Your task to perform on an android device: Clear all items from cart on target. Search for razer blade on target, select the first entry, and add it to the cart. Image 0: 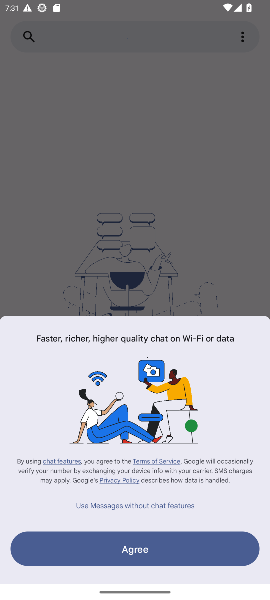
Step 0: press home button
Your task to perform on an android device: Clear all items from cart on target. Search for razer blade on target, select the first entry, and add it to the cart. Image 1: 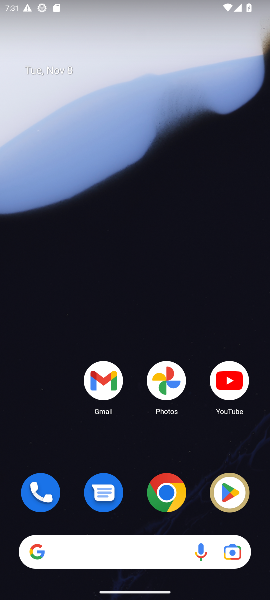
Step 1: click (168, 485)
Your task to perform on an android device: Clear all items from cart on target. Search for razer blade on target, select the first entry, and add it to the cart. Image 2: 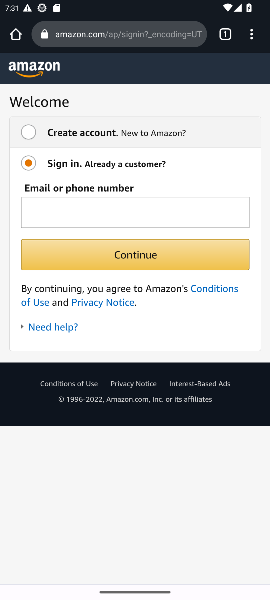
Step 2: click (155, 37)
Your task to perform on an android device: Clear all items from cart on target. Search for razer blade on target, select the first entry, and add it to the cart. Image 3: 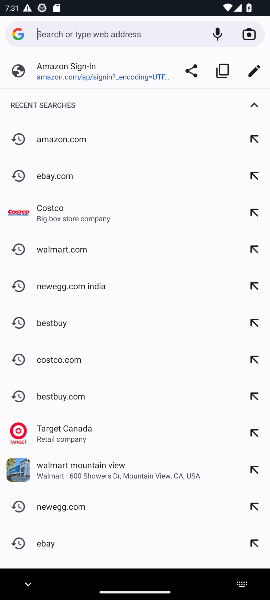
Step 3: type "target"
Your task to perform on an android device: Clear all items from cart on target. Search for razer blade on target, select the first entry, and add it to the cart. Image 4: 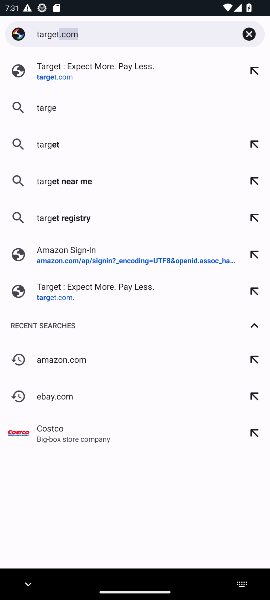
Step 4: press enter
Your task to perform on an android device: Clear all items from cart on target. Search for razer blade on target, select the first entry, and add it to the cart. Image 5: 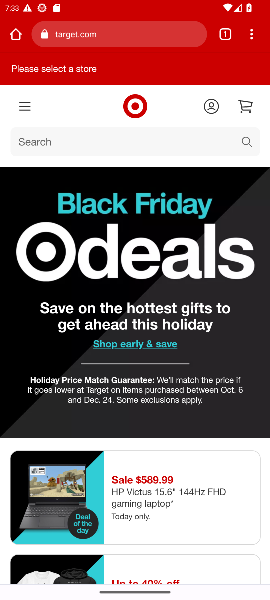
Step 5: click (95, 36)
Your task to perform on an android device: Clear all items from cart on target. Search for razer blade on target, select the first entry, and add it to the cart. Image 6: 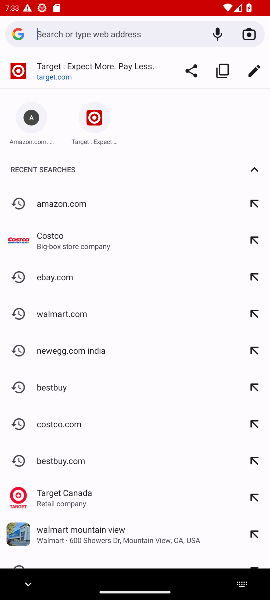
Step 6: type "target"
Your task to perform on an android device: Clear all items from cart on target. Search for razer blade on target, select the first entry, and add it to the cart. Image 7: 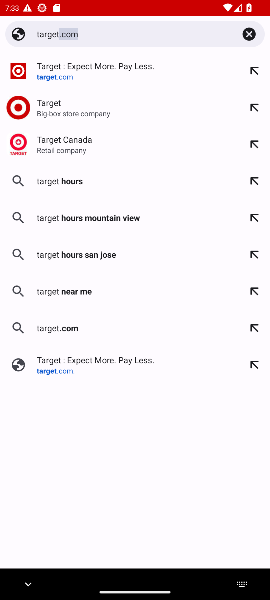
Step 7: press enter
Your task to perform on an android device: Clear all items from cart on target. Search for razer blade on target, select the first entry, and add it to the cart. Image 8: 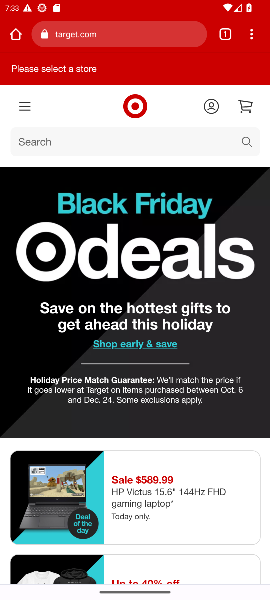
Step 8: click (54, 137)
Your task to perform on an android device: Clear all items from cart on target. Search for razer blade on target, select the first entry, and add it to the cart. Image 9: 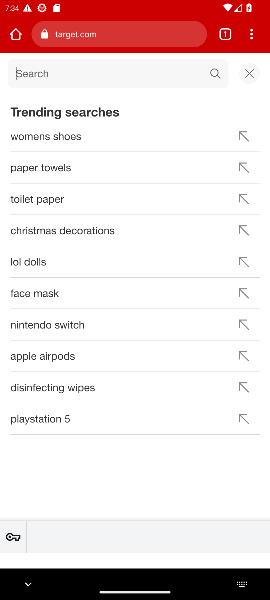
Step 9: click (251, 76)
Your task to perform on an android device: Clear all items from cart on target. Search for razer blade on target, select the first entry, and add it to the cart. Image 10: 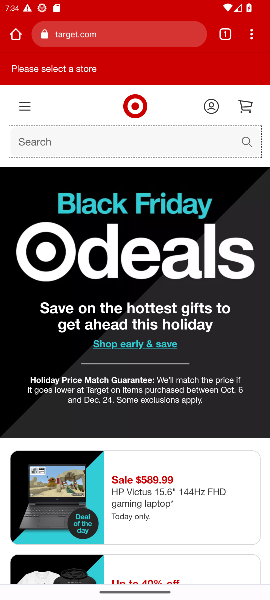
Step 10: click (247, 108)
Your task to perform on an android device: Clear all items from cart on target. Search for razer blade on target, select the first entry, and add it to the cart. Image 11: 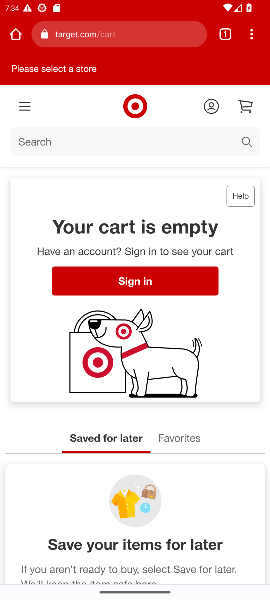
Step 11: click (84, 37)
Your task to perform on an android device: Clear all items from cart on target. Search for razer blade on target, select the first entry, and add it to the cart. Image 12: 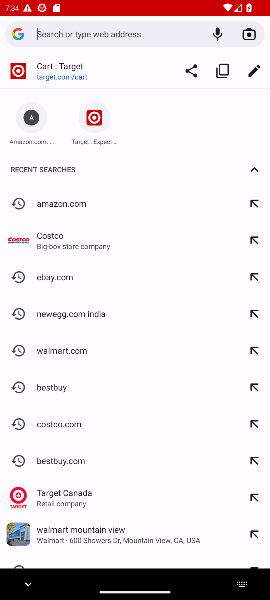
Step 12: click (87, 10)
Your task to perform on an android device: Clear all items from cart on target. Search for razer blade on target, select the first entry, and add it to the cart. Image 13: 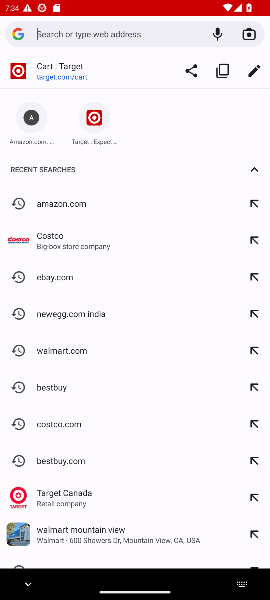
Step 13: press back button
Your task to perform on an android device: Clear all items from cart on target. Search for razer blade on target, select the first entry, and add it to the cart. Image 14: 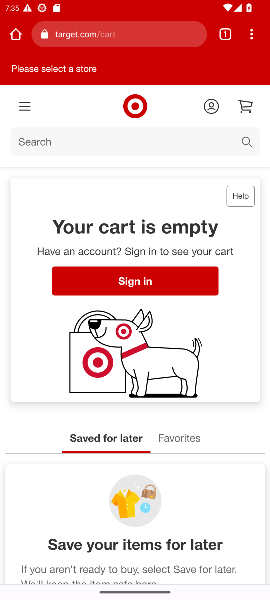
Step 14: click (112, 147)
Your task to perform on an android device: Clear all items from cart on target. Search for razer blade on target, select the first entry, and add it to the cart. Image 15: 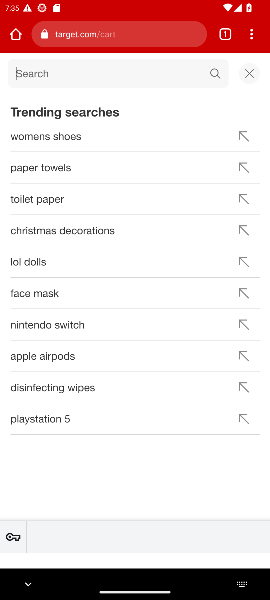
Step 15: type "razer blade"
Your task to perform on an android device: Clear all items from cart on target. Search for razer blade on target, select the first entry, and add it to the cart. Image 16: 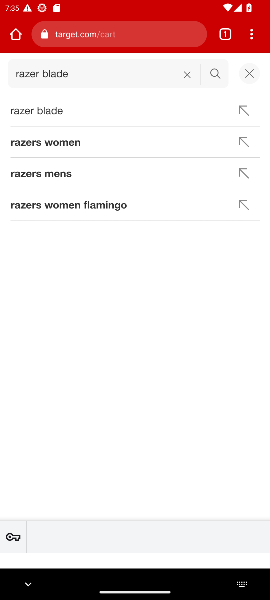
Step 16: press enter
Your task to perform on an android device: Clear all items from cart on target. Search for razer blade on target, select the first entry, and add it to the cart. Image 17: 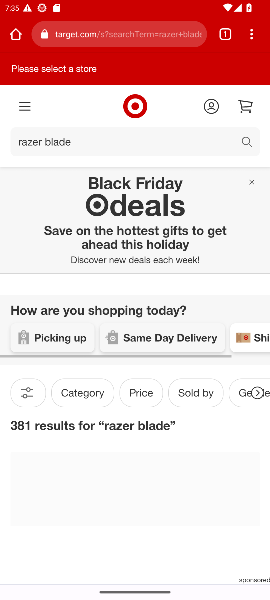
Step 17: drag from (140, 497) to (166, 310)
Your task to perform on an android device: Clear all items from cart on target. Search for razer blade on target, select the first entry, and add it to the cart. Image 18: 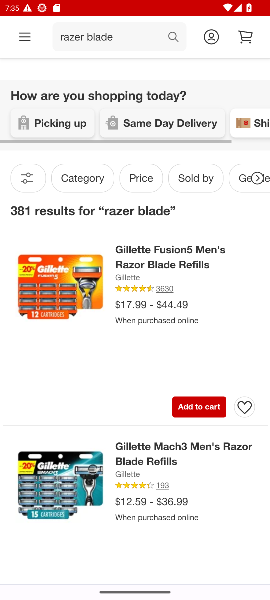
Step 18: click (137, 279)
Your task to perform on an android device: Clear all items from cart on target. Search for razer blade on target, select the first entry, and add it to the cart. Image 19: 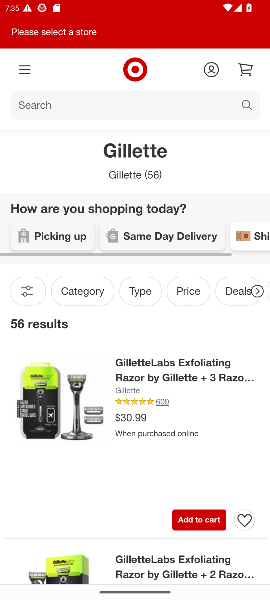
Step 19: click (198, 526)
Your task to perform on an android device: Clear all items from cart on target. Search for razer blade on target, select the first entry, and add it to the cart. Image 20: 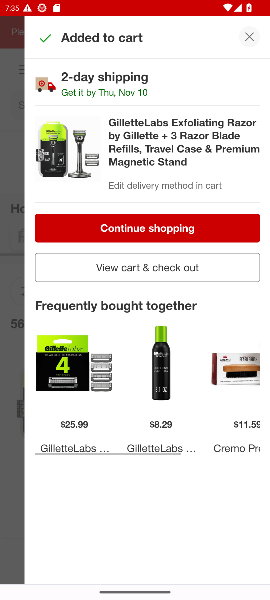
Step 20: click (144, 234)
Your task to perform on an android device: Clear all items from cart on target. Search for razer blade on target, select the first entry, and add it to the cart. Image 21: 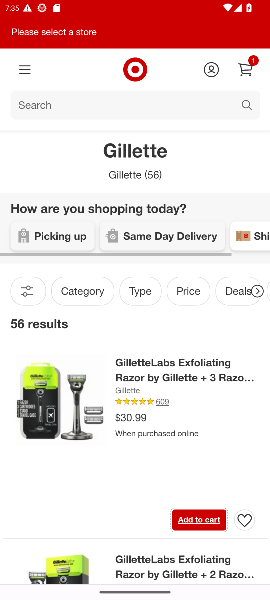
Step 21: task complete